Your task to perform on an android device: Go to Google maps Image 0: 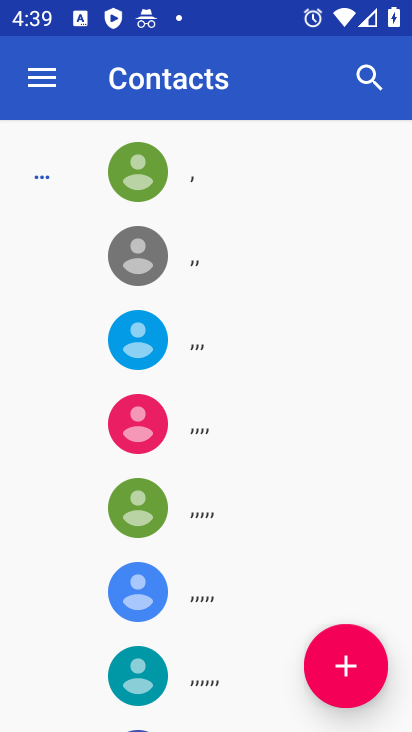
Step 0: press home button
Your task to perform on an android device: Go to Google maps Image 1: 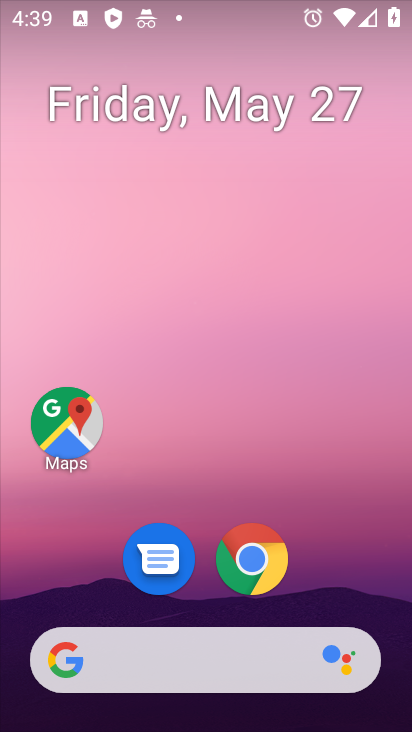
Step 1: drag from (223, 650) to (264, 36)
Your task to perform on an android device: Go to Google maps Image 2: 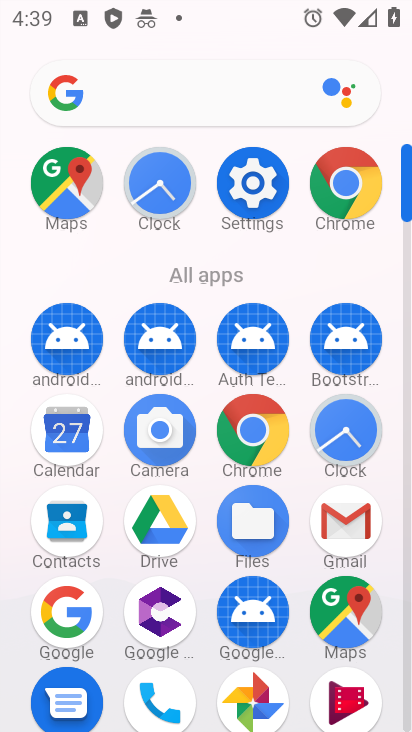
Step 2: click (346, 625)
Your task to perform on an android device: Go to Google maps Image 3: 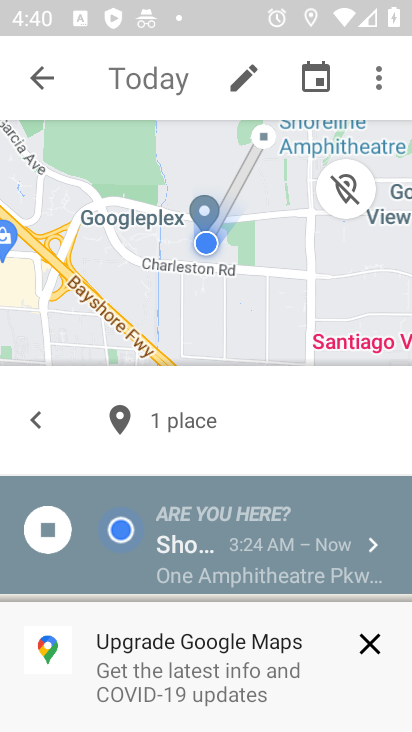
Step 3: press back button
Your task to perform on an android device: Go to Google maps Image 4: 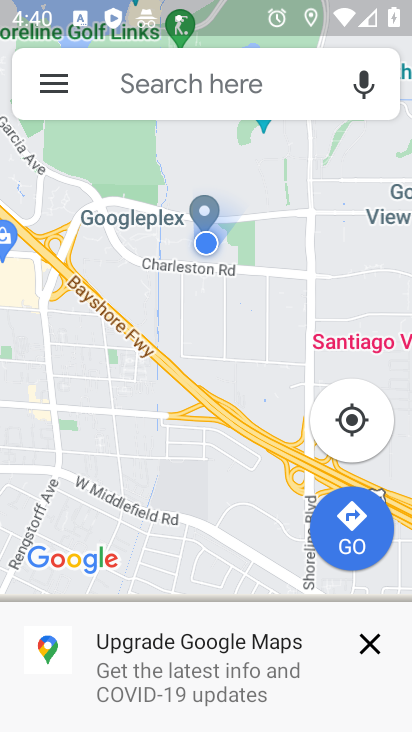
Step 4: press back button
Your task to perform on an android device: Go to Google maps Image 5: 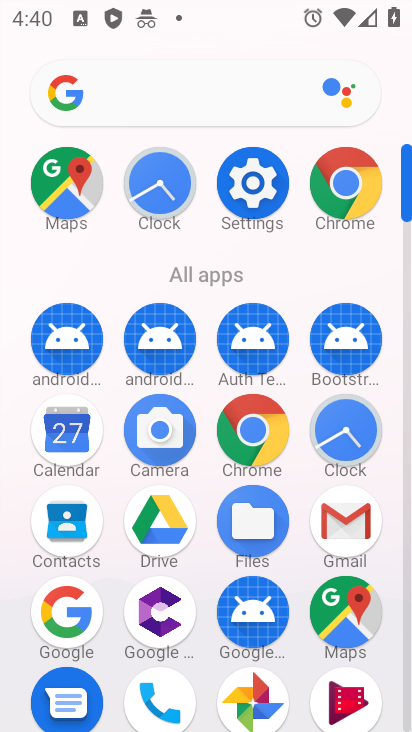
Step 5: click (343, 619)
Your task to perform on an android device: Go to Google maps Image 6: 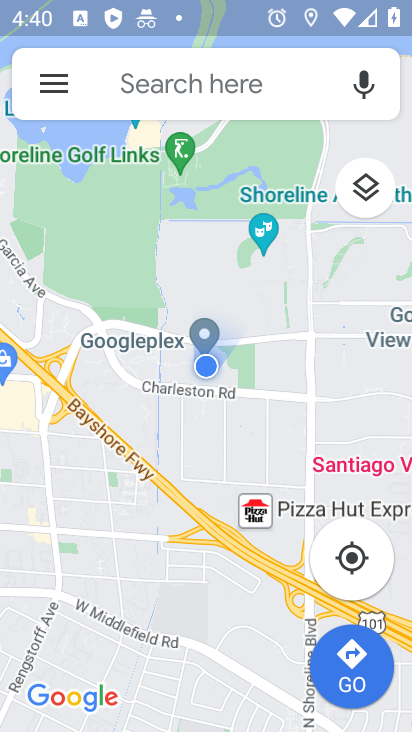
Step 6: task complete